Your task to perform on an android device: Show me popular games on the Play Store Image 0: 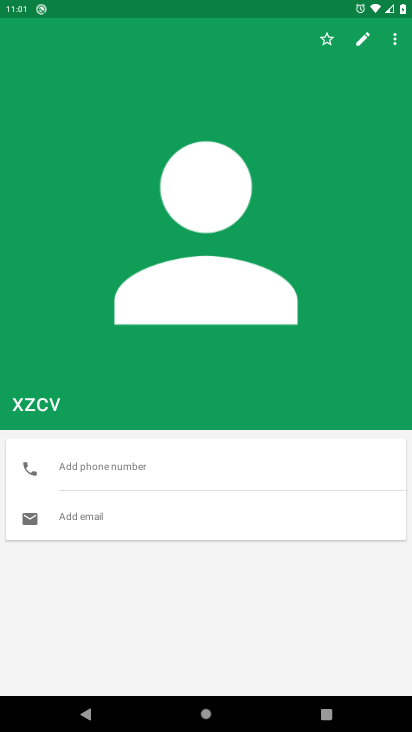
Step 0: press home button
Your task to perform on an android device: Show me popular games on the Play Store Image 1: 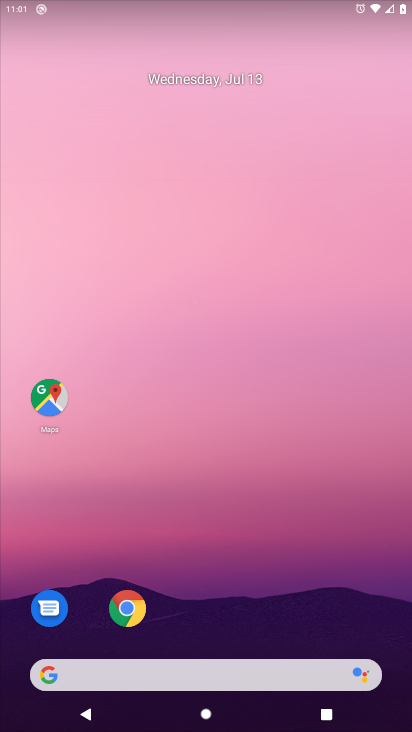
Step 1: drag from (44, 685) to (262, 124)
Your task to perform on an android device: Show me popular games on the Play Store Image 2: 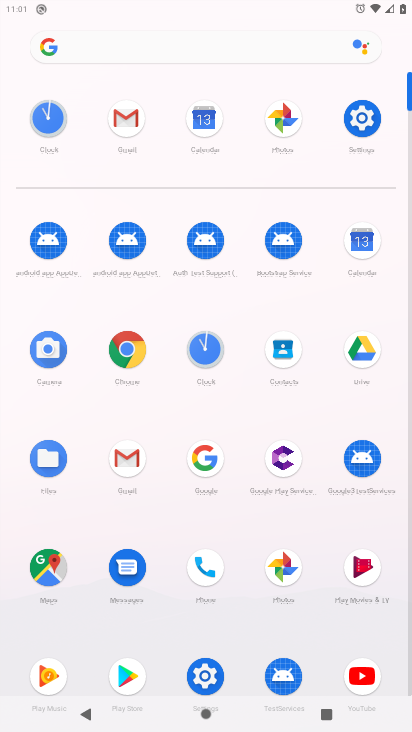
Step 2: click (140, 683)
Your task to perform on an android device: Show me popular games on the Play Store Image 3: 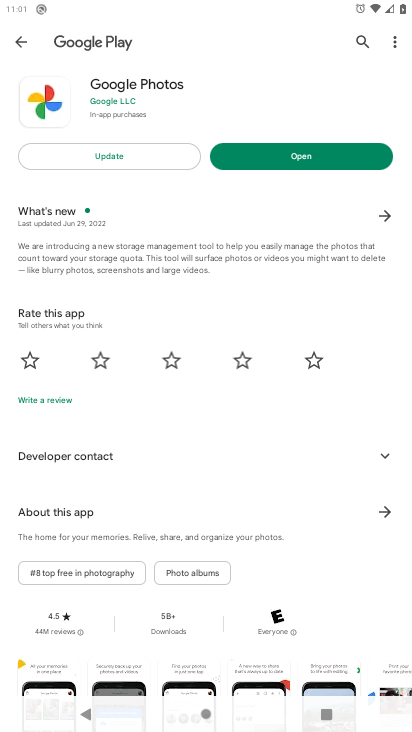
Step 3: click (27, 42)
Your task to perform on an android device: Show me popular games on the Play Store Image 4: 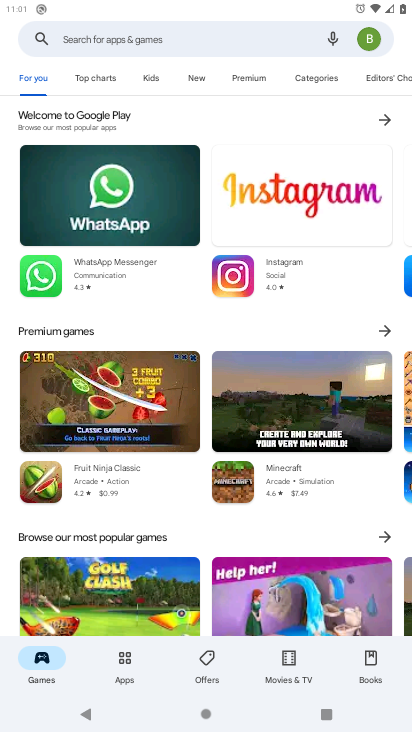
Step 4: click (74, 34)
Your task to perform on an android device: Show me popular games on the Play Store Image 5: 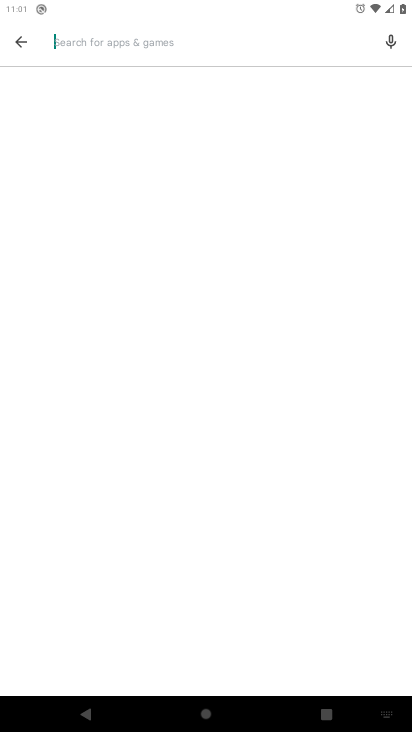
Step 5: type "popular games"
Your task to perform on an android device: Show me popular games on the Play Store Image 6: 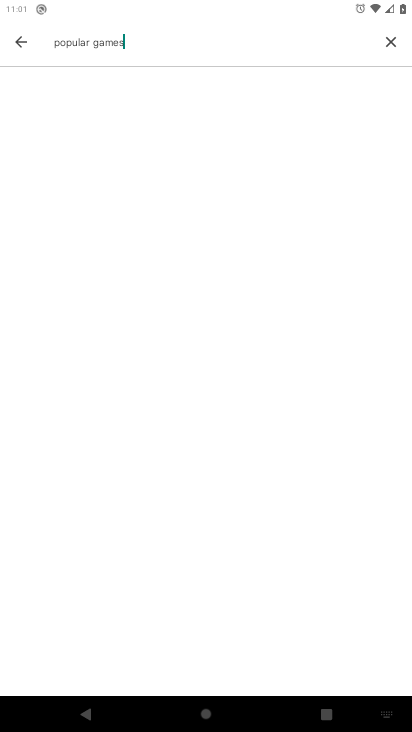
Step 6: type ""
Your task to perform on an android device: Show me popular games on the Play Store Image 7: 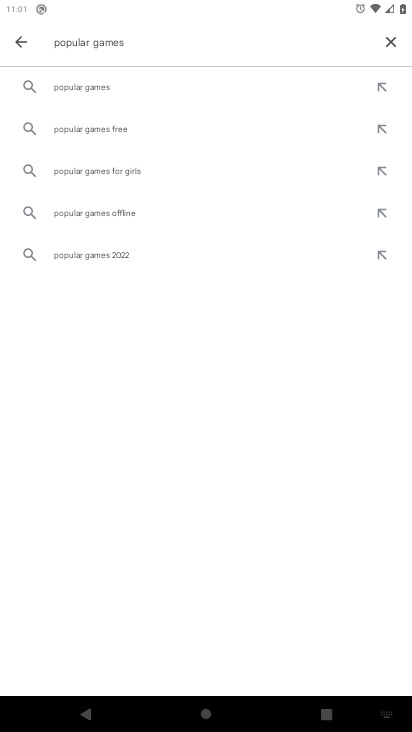
Step 7: click (70, 89)
Your task to perform on an android device: Show me popular games on the Play Store Image 8: 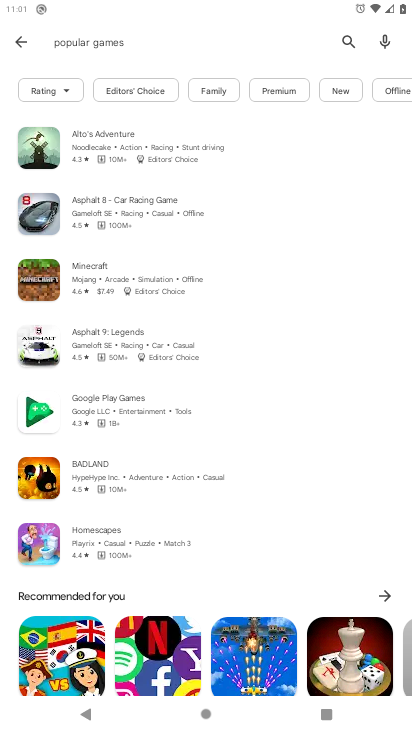
Step 8: task complete